Your task to perform on an android device: refresh tabs in the chrome app Image 0: 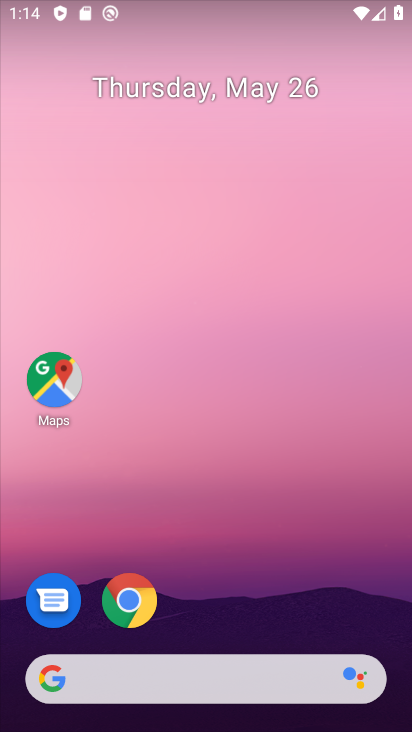
Step 0: click (129, 600)
Your task to perform on an android device: refresh tabs in the chrome app Image 1: 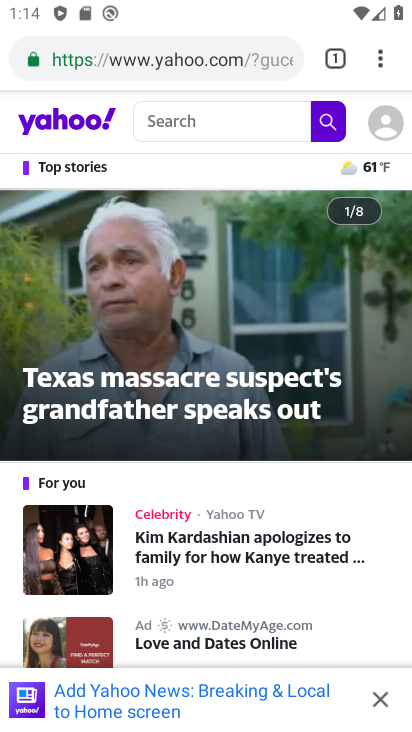
Step 1: click (381, 57)
Your task to perform on an android device: refresh tabs in the chrome app Image 2: 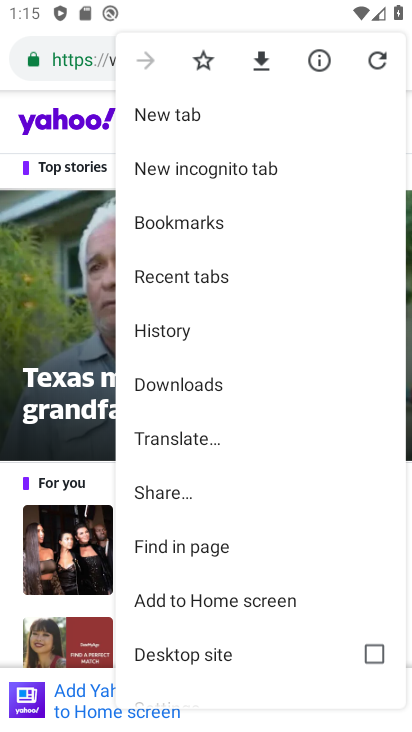
Step 2: click (381, 57)
Your task to perform on an android device: refresh tabs in the chrome app Image 3: 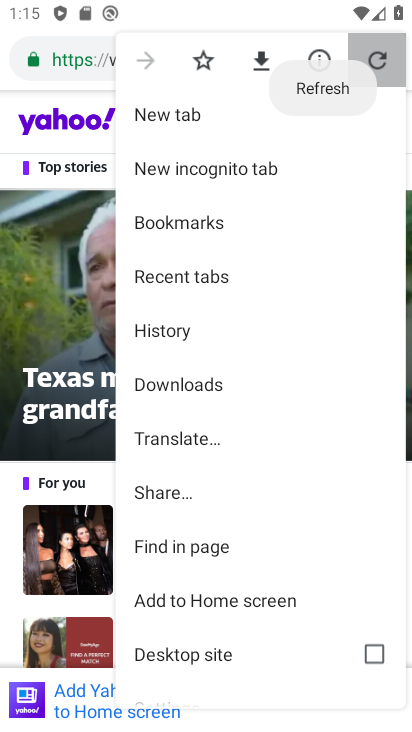
Step 3: click (381, 57)
Your task to perform on an android device: refresh tabs in the chrome app Image 4: 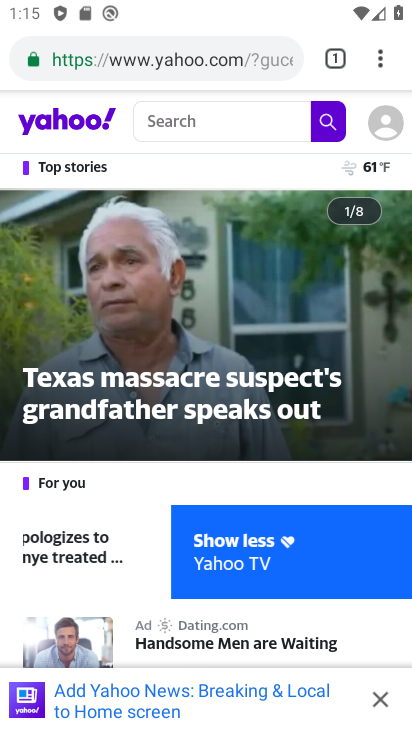
Step 4: task complete